Your task to perform on an android device: open sync settings in chrome Image 0: 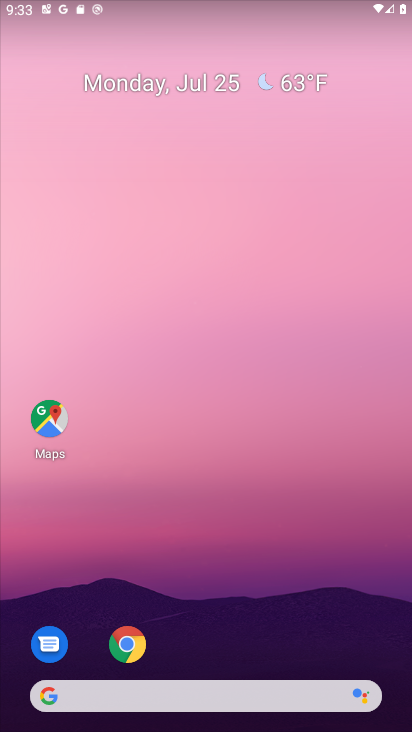
Step 0: click (320, 282)
Your task to perform on an android device: open sync settings in chrome Image 1: 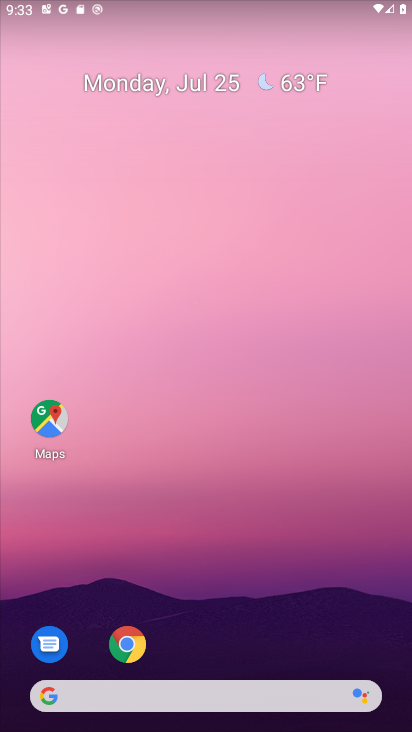
Step 1: drag from (155, 684) to (110, 153)
Your task to perform on an android device: open sync settings in chrome Image 2: 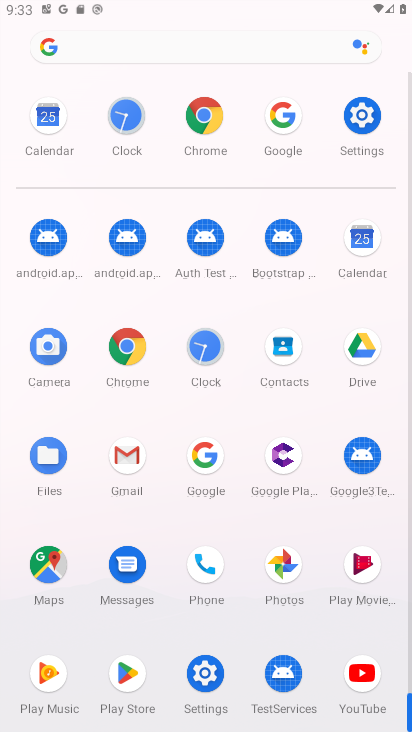
Step 2: drag from (236, 565) to (190, 124)
Your task to perform on an android device: open sync settings in chrome Image 3: 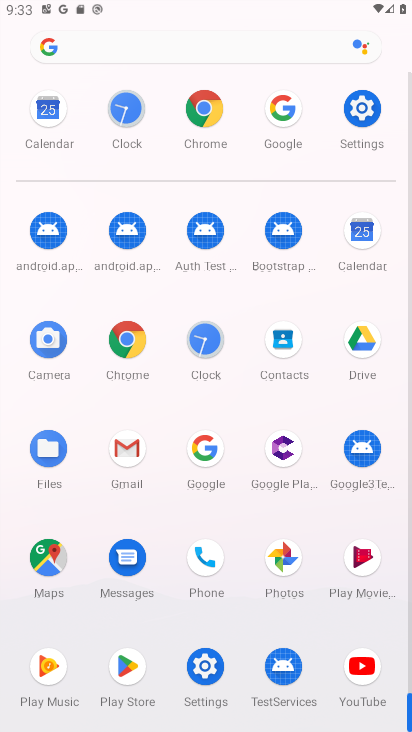
Step 3: click (217, 117)
Your task to perform on an android device: open sync settings in chrome Image 4: 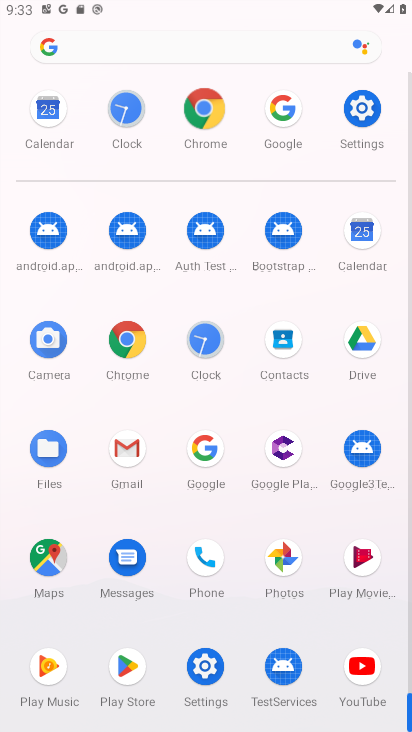
Step 4: click (214, 116)
Your task to perform on an android device: open sync settings in chrome Image 5: 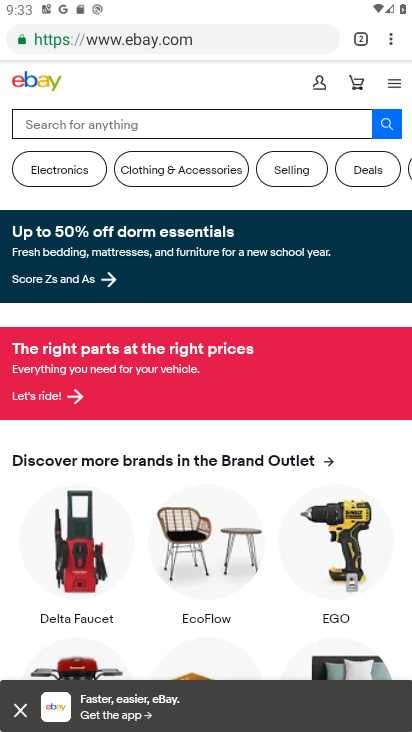
Step 5: click (386, 35)
Your task to perform on an android device: open sync settings in chrome Image 6: 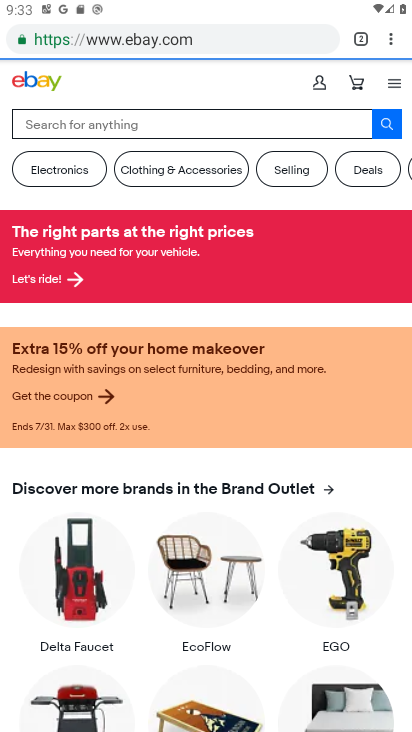
Step 6: click (395, 42)
Your task to perform on an android device: open sync settings in chrome Image 7: 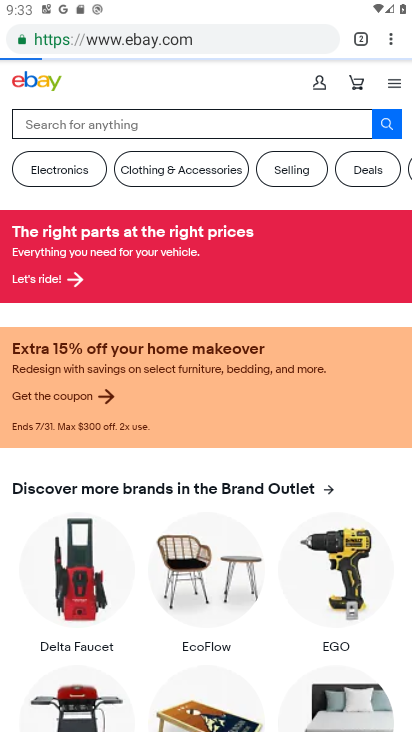
Step 7: drag from (396, 40) to (254, 483)
Your task to perform on an android device: open sync settings in chrome Image 8: 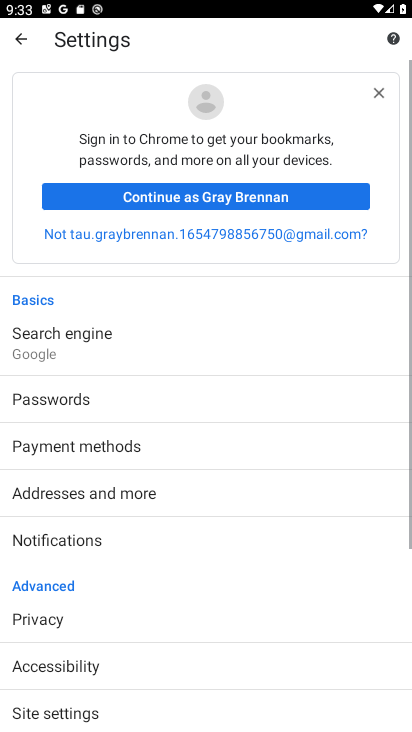
Step 8: drag from (229, 547) to (192, 206)
Your task to perform on an android device: open sync settings in chrome Image 9: 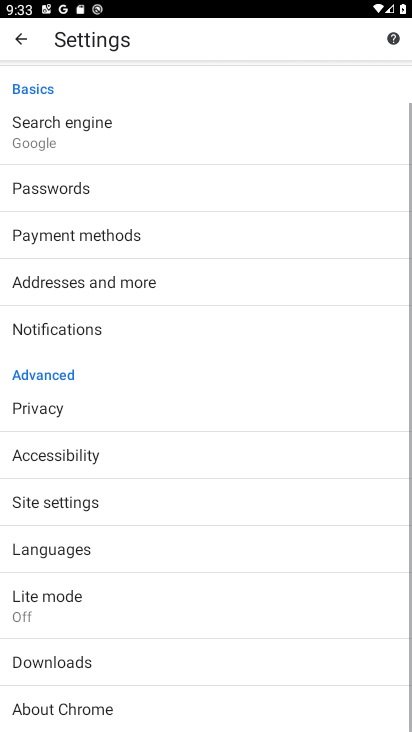
Step 9: drag from (214, 508) to (169, 184)
Your task to perform on an android device: open sync settings in chrome Image 10: 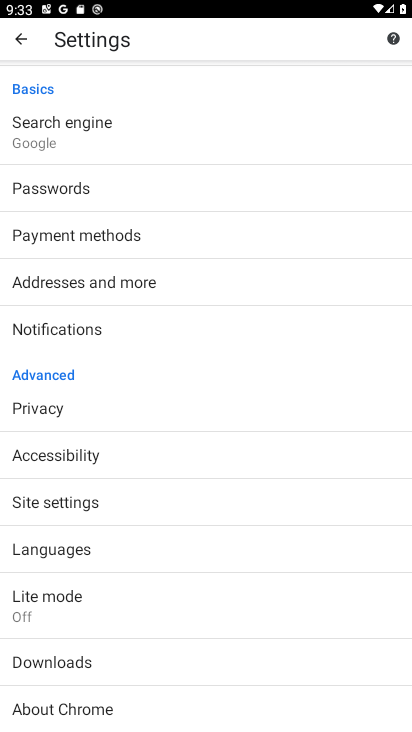
Step 10: click (48, 502)
Your task to perform on an android device: open sync settings in chrome Image 11: 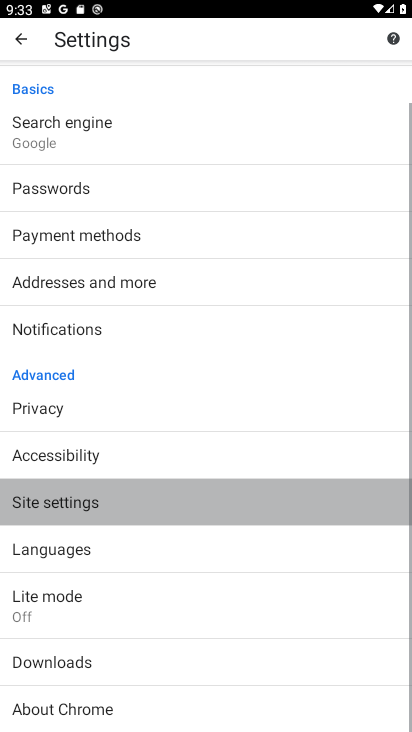
Step 11: click (49, 502)
Your task to perform on an android device: open sync settings in chrome Image 12: 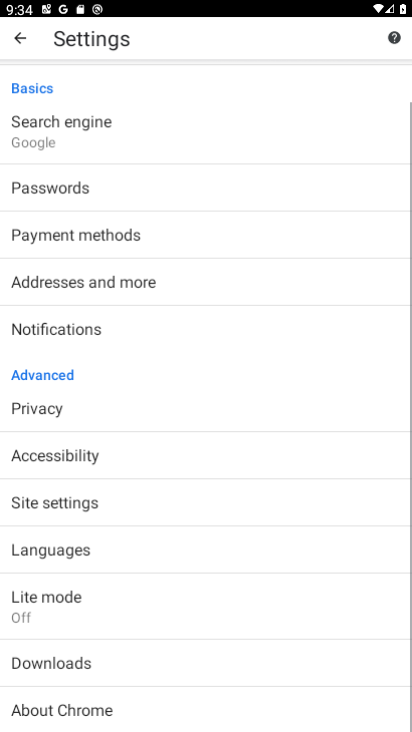
Step 12: click (49, 502)
Your task to perform on an android device: open sync settings in chrome Image 13: 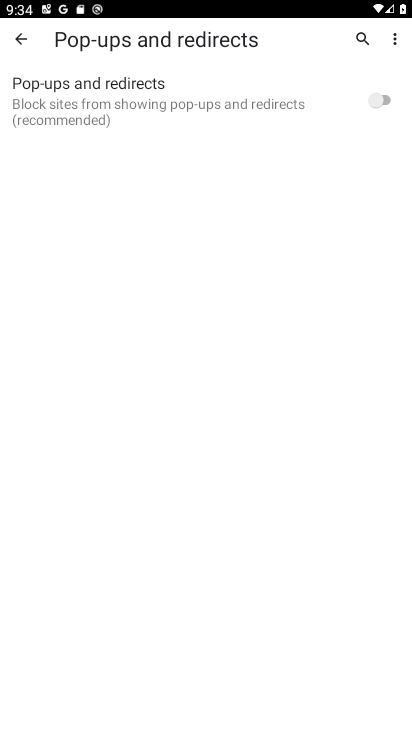
Step 13: click (18, 39)
Your task to perform on an android device: open sync settings in chrome Image 14: 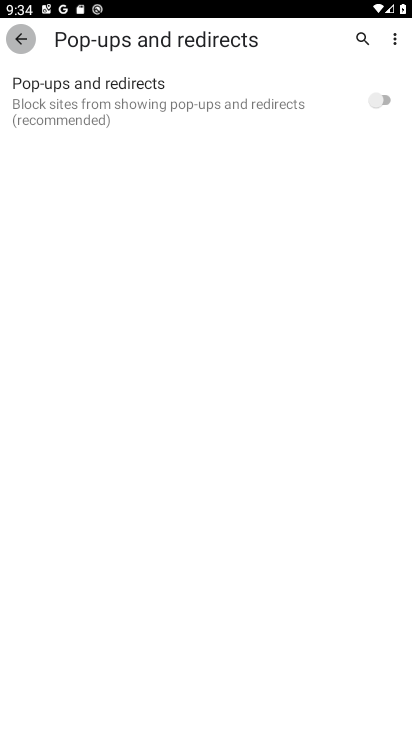
Step 14: click (18, 39)
Your task to perform on an android device: open sync settings in chrome Image 15: 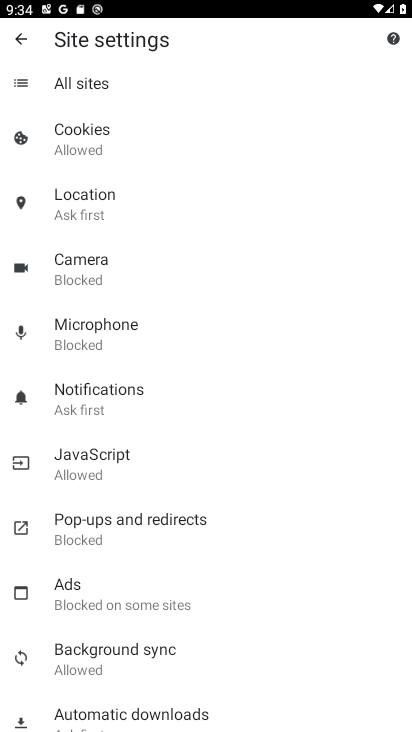
Step 15: click (99, 652)
Your task to perform on an android device: open sync settings in chrome Image 16: 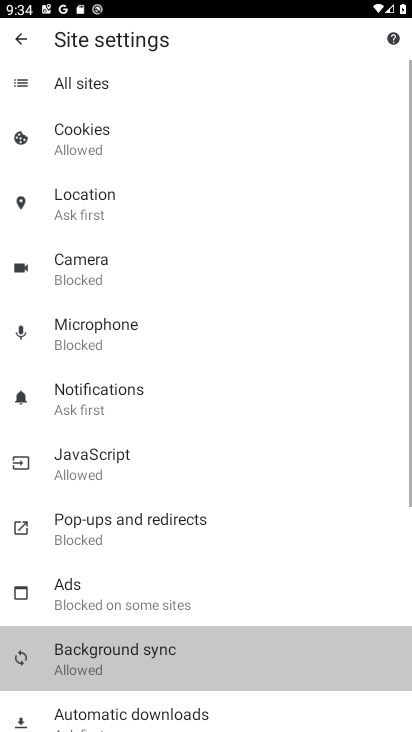
Step 16: click (99, 651)
Your task to perform on an android device: open sync settings in chrome Image 17: 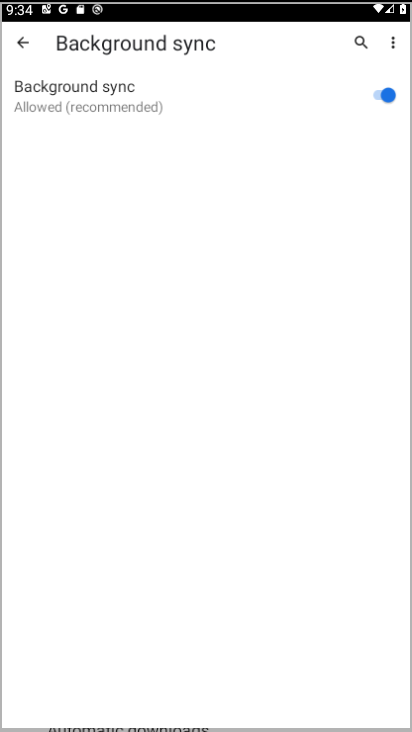
Step 17: click (99, 651)
Your task to perform on an android device: open sync settings in chrome Image 18: 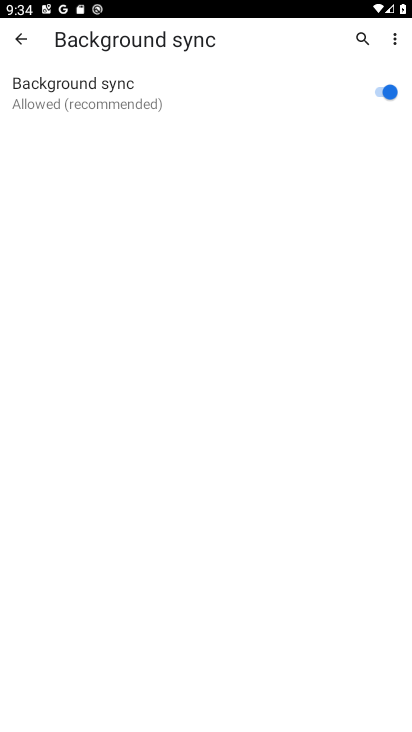
Step 18: click (112, 650)
Your task to perform on an android device: open sync settings in chrome Image 19: 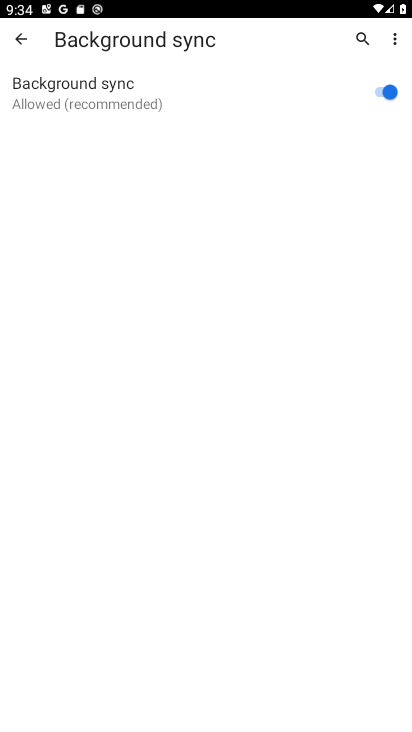
Step 19: click (388, 91)
Your task to perform on an android device: open sync settings in chrome Image 20: 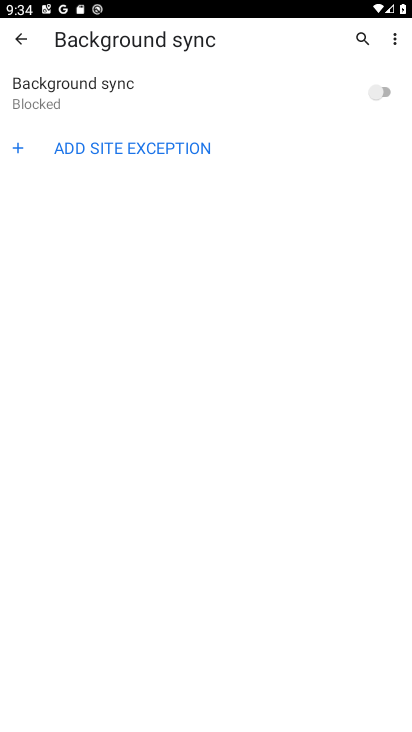
Step 20: click (379, 89)
Your task to perform on an android device: open sync settings in chrome Image 21: 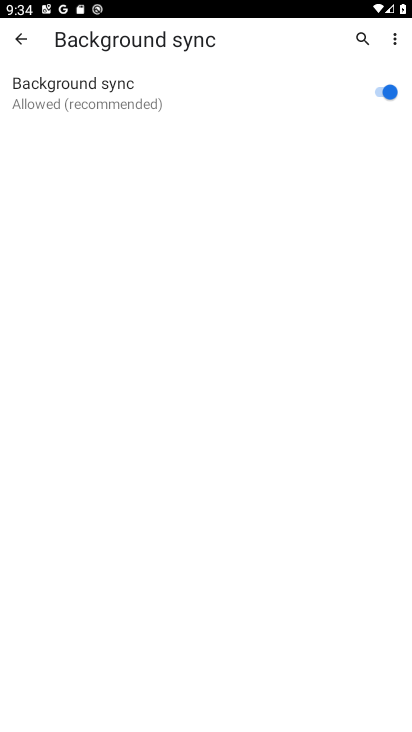
Step 21: task complete